Your task to perform on an android device: Open Youtube and go to "Your channel" Image 0: 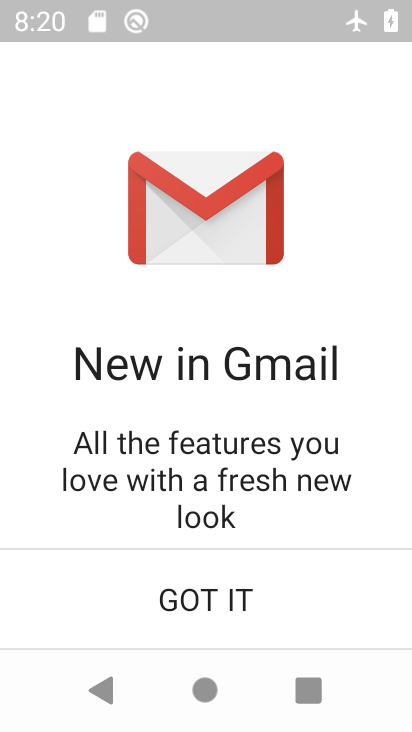
Step 0: press home button
Your task to perform on an android device: Open Youtube and go to "Your channel" Image 1: 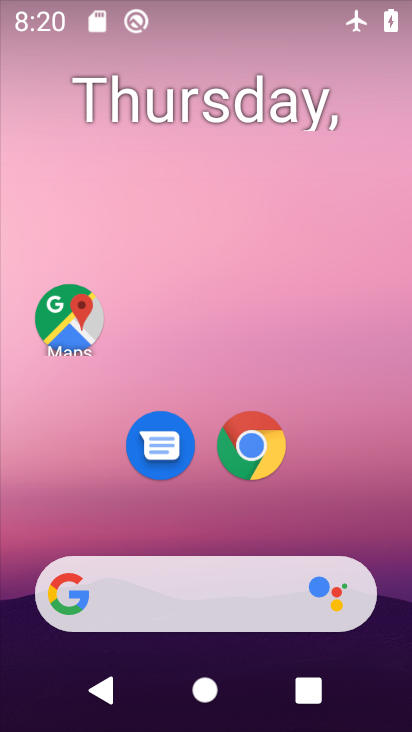
Step 1: drag from (354, 638) to (310, 185)
Your task to perform on an android device: Open Youtube and go to "Your channel" Image 2: 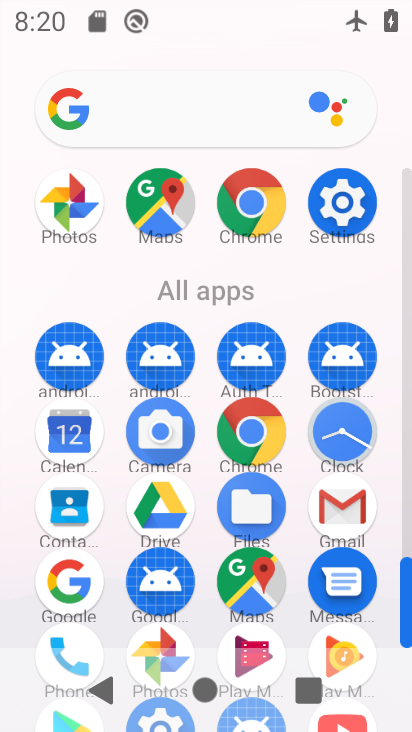
Step 2: drag from (304, 556) to (288, 179)
Your task to perform on an android device: Open Youtube and go to "Your channel" Image 3: 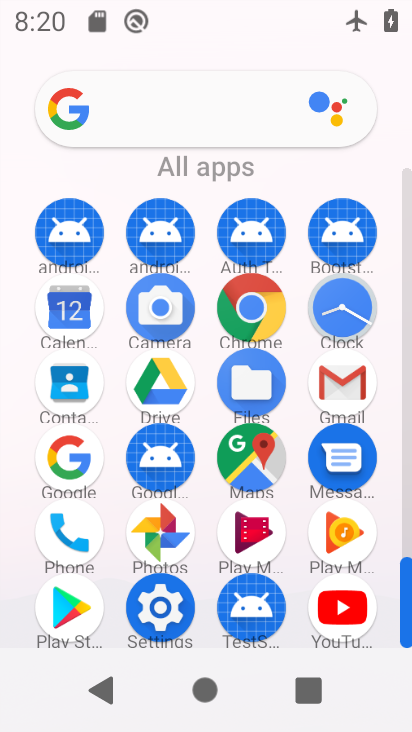
Step 3: click (350, 611)
Your task to perform on an android device: Open Youtube and go to "Your channel" Image 4: 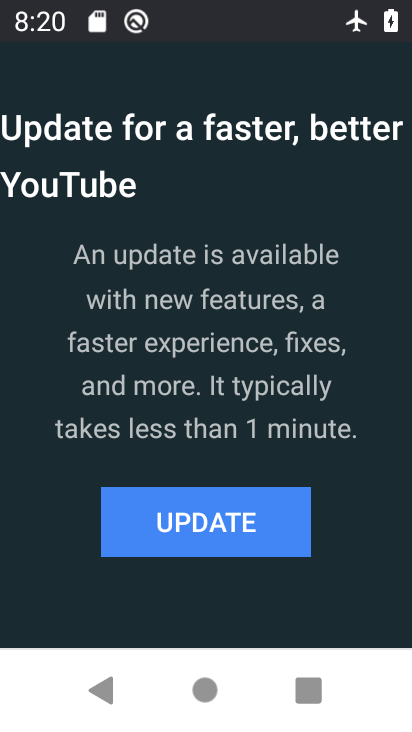
Step 4: click (227, 549)
Your task to perform on an android device: Open Youtube and go to "Your channel" Image 5: 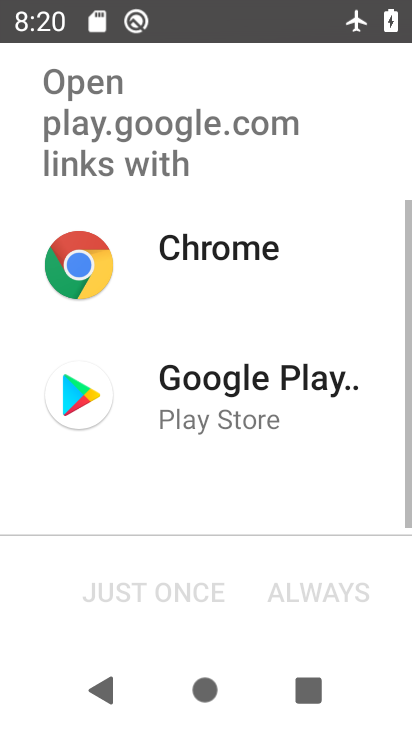
Step 5: click (232, 405)
Your task to perform on an android device: Open Youtube and go to "Your channel" Image 6: 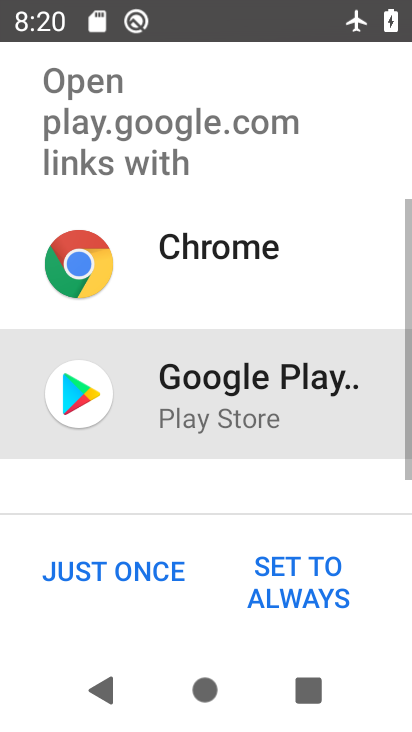
Step 6: click (137, 567)
Your task to perform on an android device: Open Youtube and go to "Your channel" Image 7: 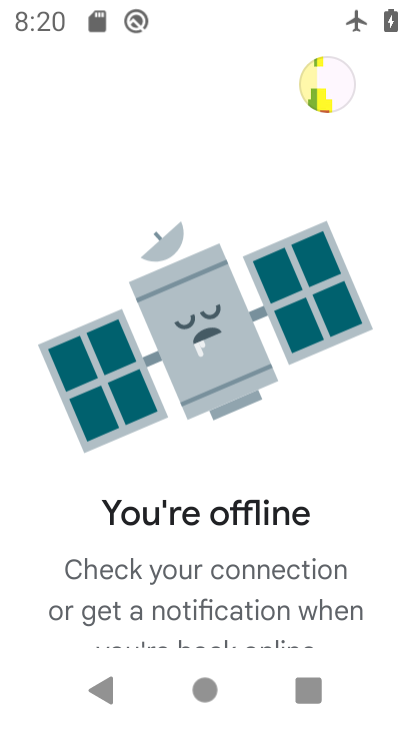
Step 7: drag from (158, 563) to (166, 352)
Your task to perform on an android device: Open Youtube and go to "Your channel" Image 8: 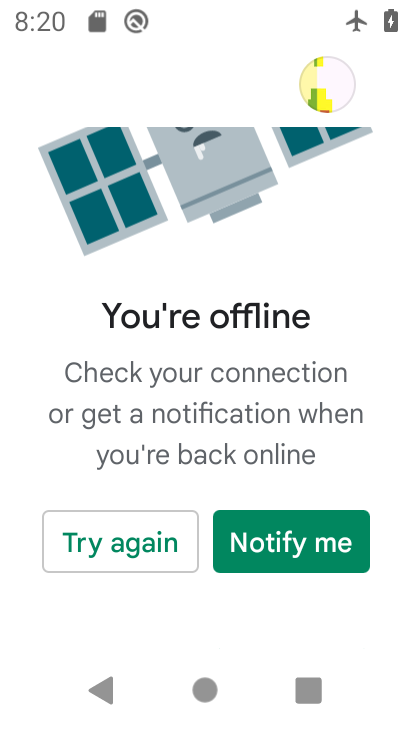
Step 8: click (129, 554)
Your task to perform on an android device: Open Youtube and go to "Your channel" Image 9: 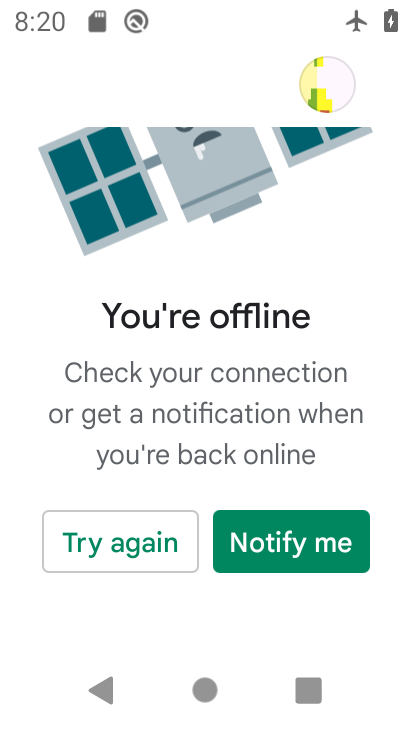
Step 9: click (142, 540)
Your task to perform on an android device: Open Youtube and go to "Your channel" Image 10: 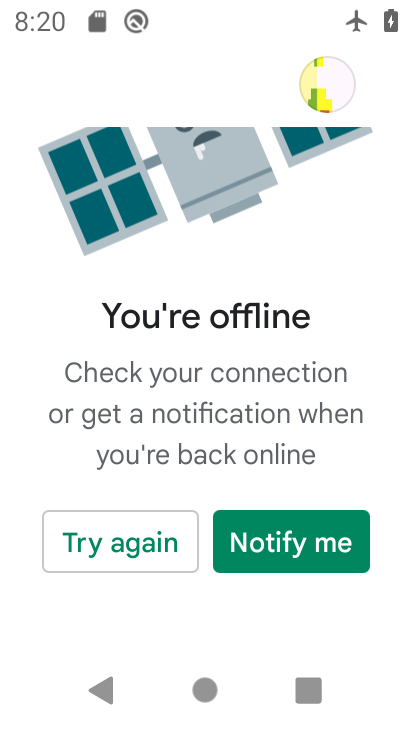
Step 10: click (125, 546)
Your task to perform on an android device: Open Youtube and go to "Your channel" Image 11: 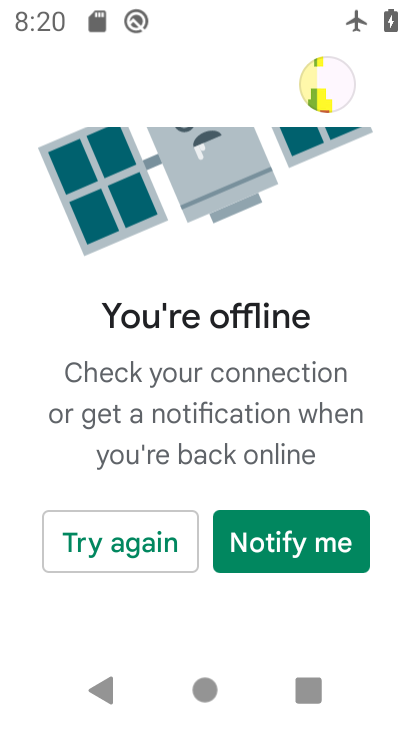
Step 11: task complete